Your task to perform on an android device: Go to Android settings Image 0: 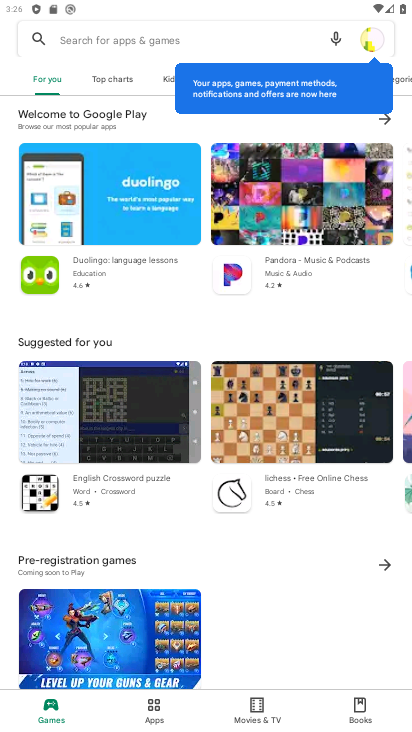
Step 0: press home button
Your task to perform on an android device: Go to Android settings Image 1: 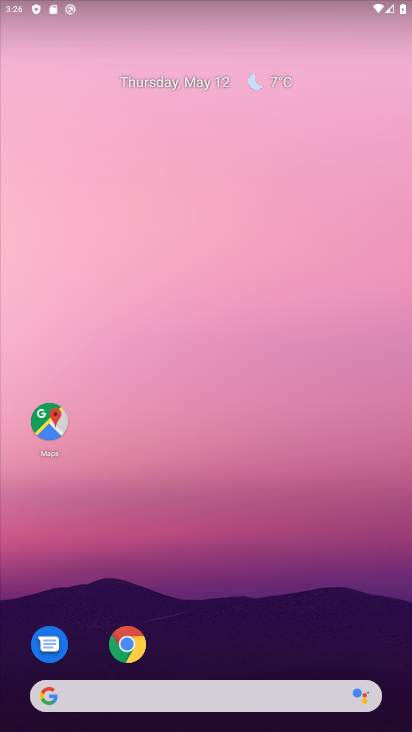
Step 1: drag from (213, 654) to (205, 137)
Your task to perform on an android device: Go to Android settings Image 2: 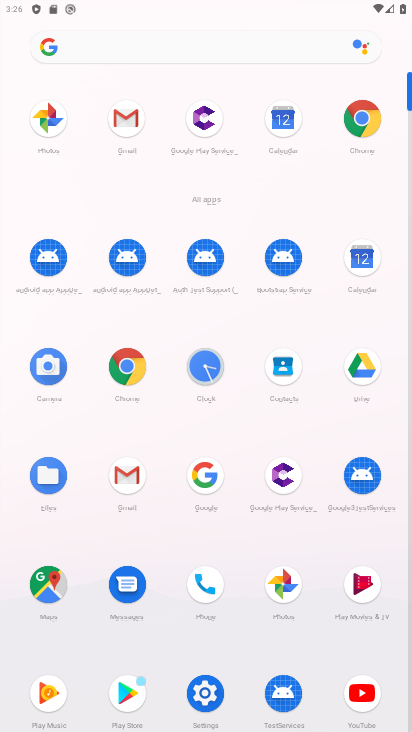
Step 2: click (208, 692)
Your task to perform on an android device: Go to Android settings Image 3: 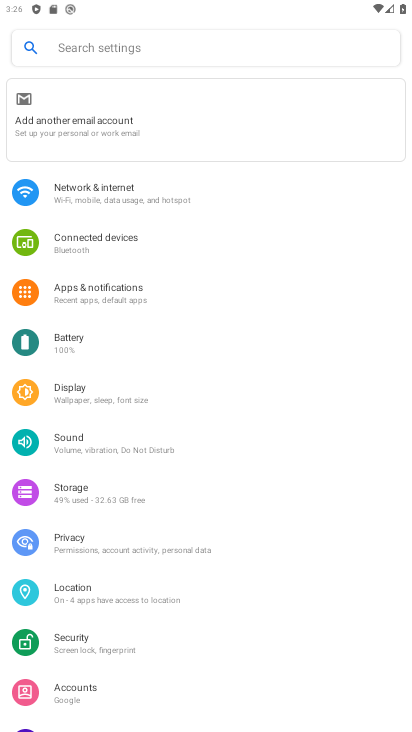
Step 3: drag from (119, 659) to (118, 165)
Your task to perform on an android device: Go to Android settings Image 4: 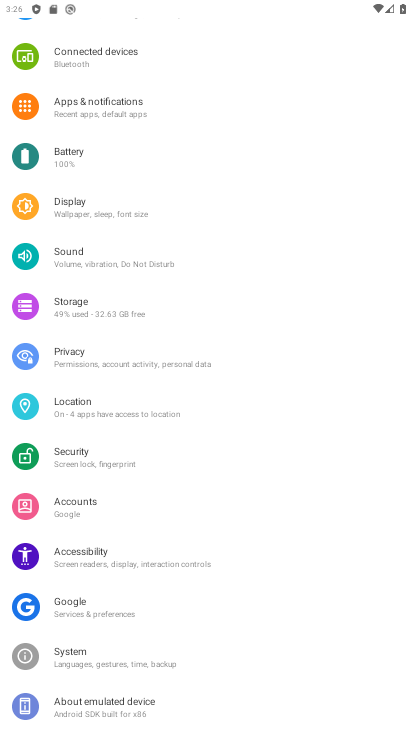
Step 4: click (128, 705)
Your task to perform on an android device: Go to Android settings Image 5: 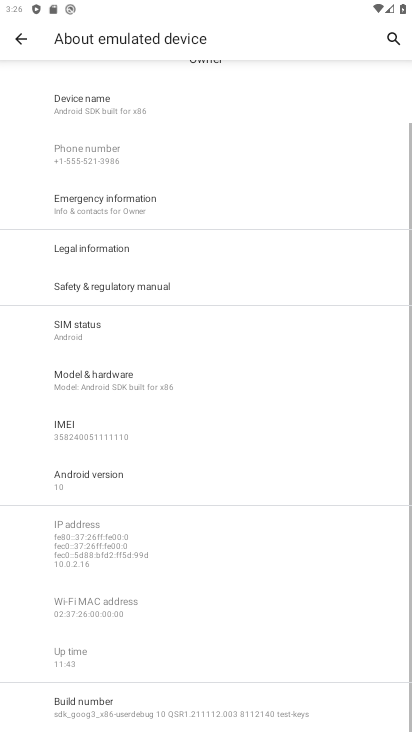
Step 5: click (113, 477)
Your task to perform on an android device: Go to Android settings Image 6: 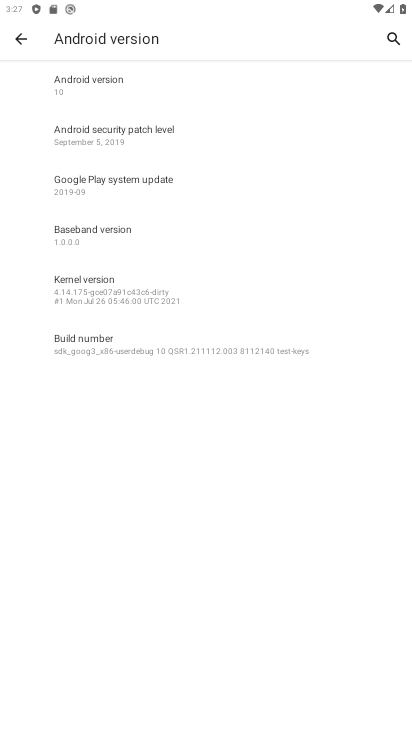
Step 6: task complete